Your task to perform on an android device: manage bookmarks in the chrome app Image 0: 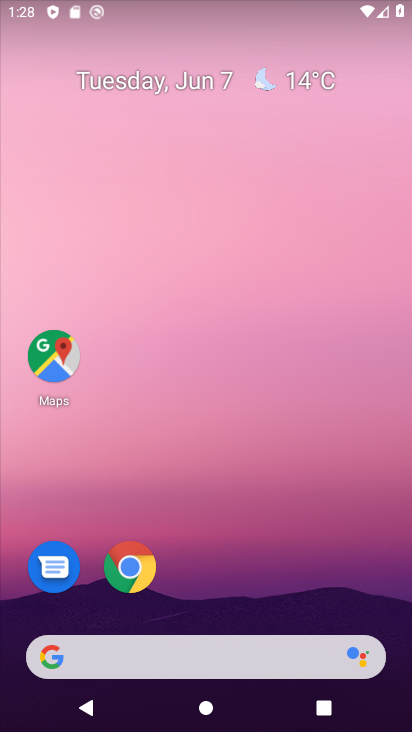
Step 0: drag from (288, 578) to (347, 2)
Your task to perform on an android device: manage bookmarks in the chrome app Image 1: 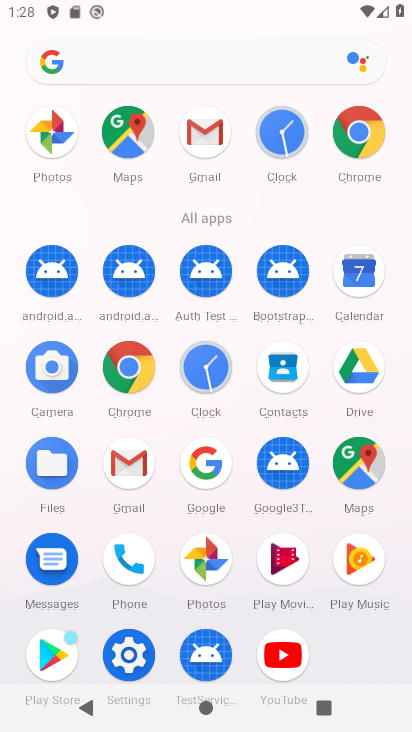
Step 1: click (361, 141)
Your task to perform on an android device: manage bookmarks in the chrome app Image 2: 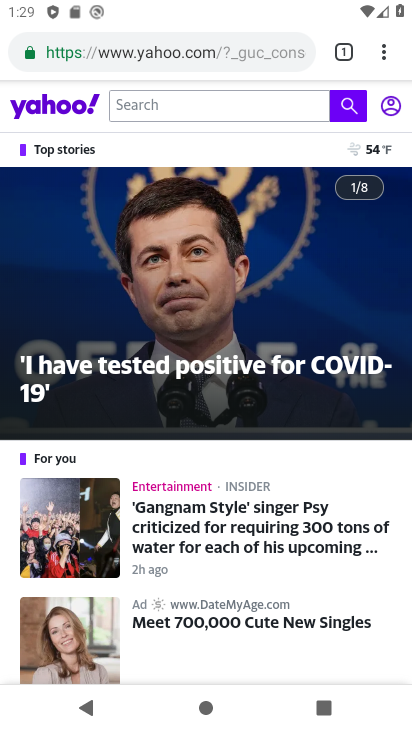
Step 2: drag from (383, 54) to (248, 211)
Your task to perform on an android device: manage bookmarks in the chrome app Image 3: 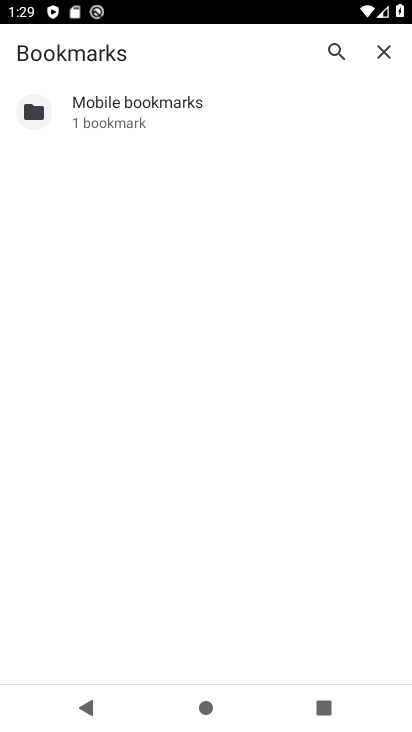
Step 3: click (152, 99)
Your task to perform on an android device: manage bookmarks in the chrome app Image 4: 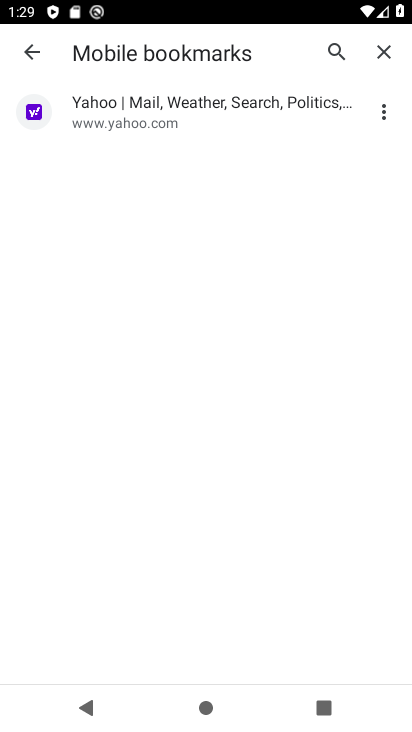
Step 4: click (379, 116)
Your task to perform on an android device: manage bookmarks in the chrome app Image 5: 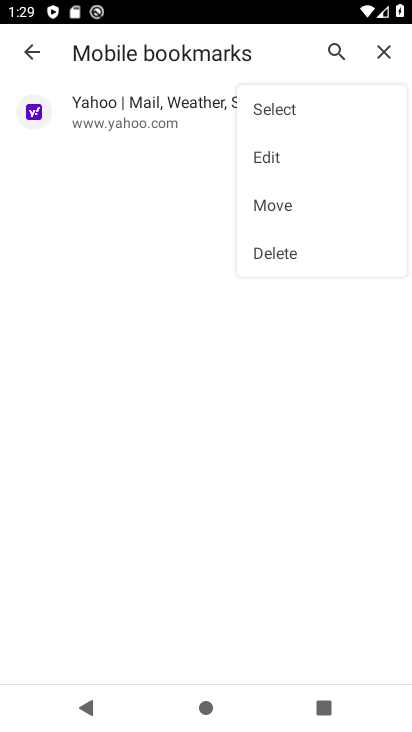
Step 5: click (286, 250)
Your task to perform on an android device: manage bookmarks in the chrome app Image 6: 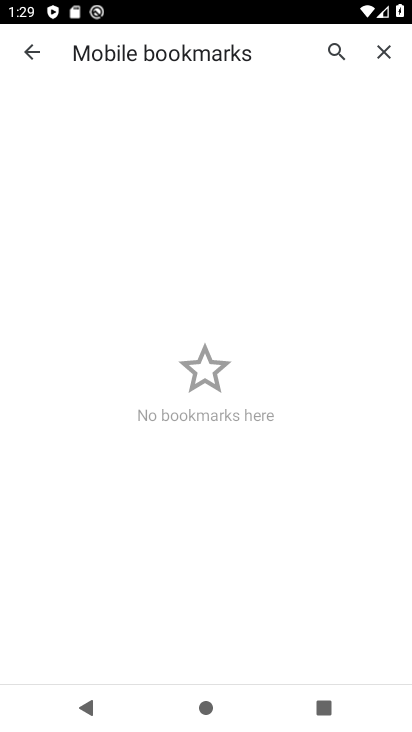
Step 6: task complete